Your task to perform on an android device: Open Wikipedia Image 0: 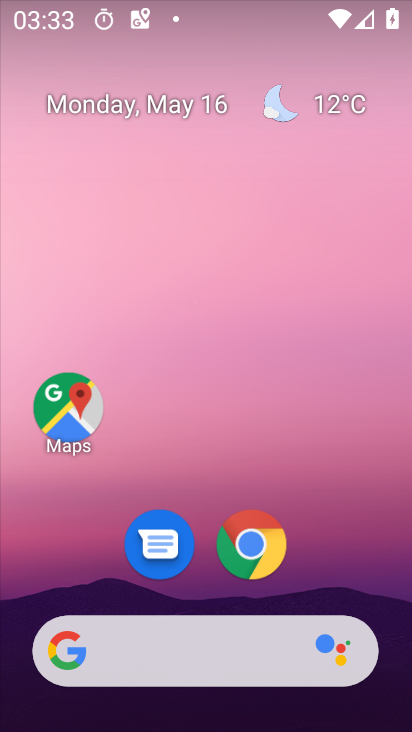
Step 0: click (255, 546)
Your task to perform on an android device: Open Wikipedia Image 1: 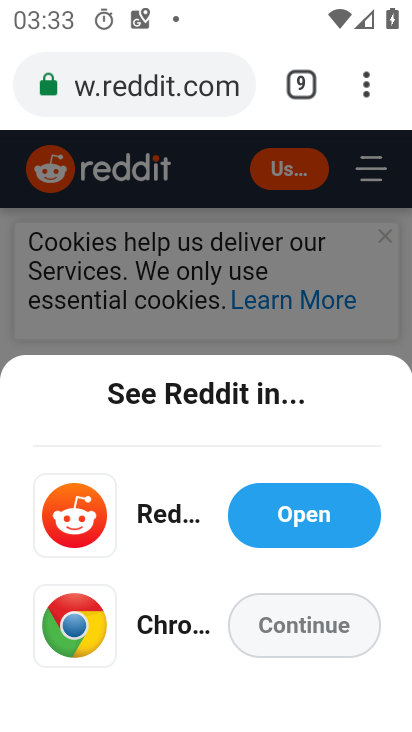
Step 1: click (368, 94)
Your task to perform on an android device: Open Wikipedia Image 2: 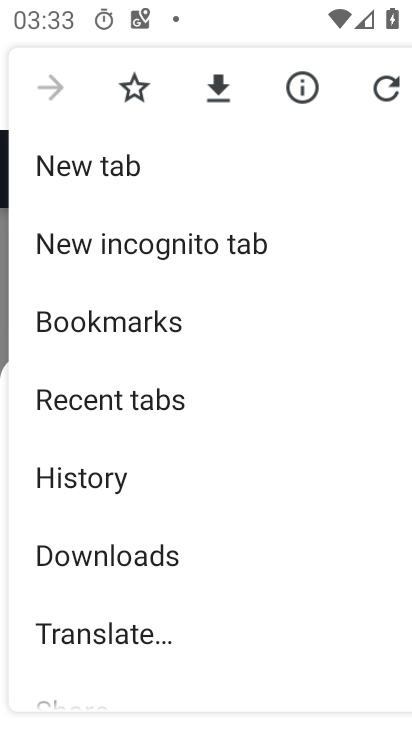
Step 2: click (105, 164)
Your task to perform on an android device: Open Wikipedia Image 3: 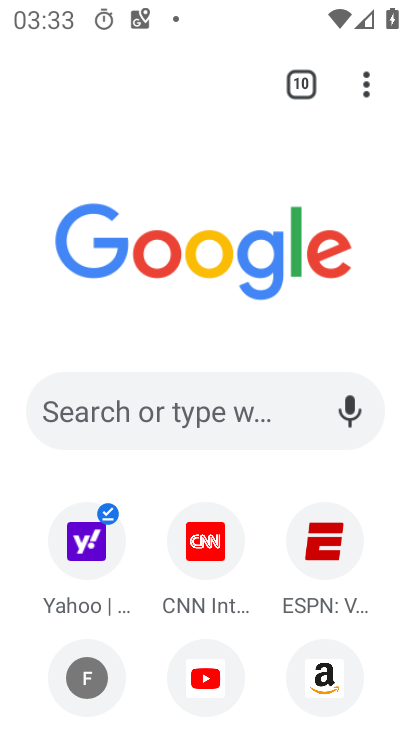
Step 3: click (181, 412)
Your task to perform on an android device: Open Wikipedia Image 4: 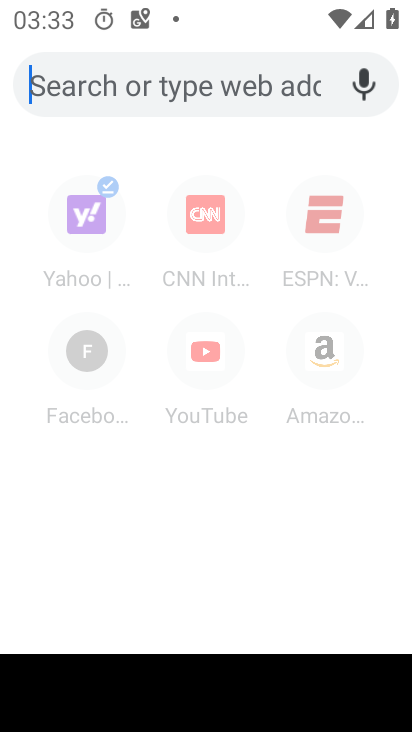
Step 4: type "Wikipedia"
Your task to perform on an android device: Open Wikipedia Image 5: 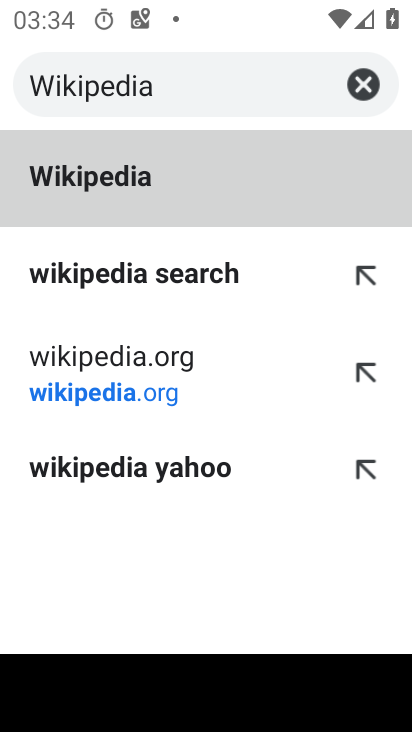
Step 5: click (111, 172)
Your task to perform on an android device: Open Wikipedia Image 6: 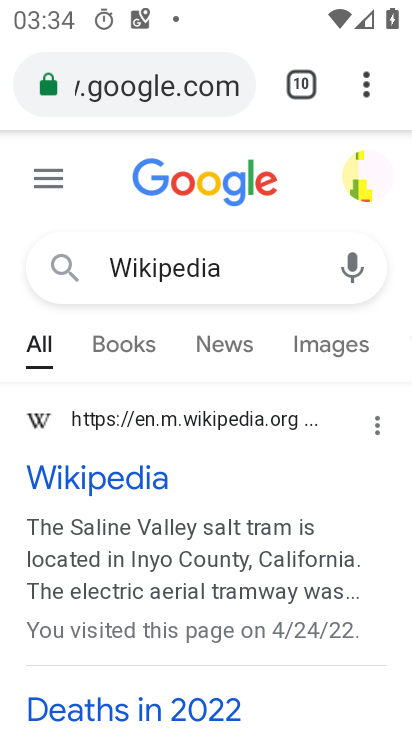
Step 6: click (78, 477)
Your task to perform on an android device: Open Wikipedia Image 7: 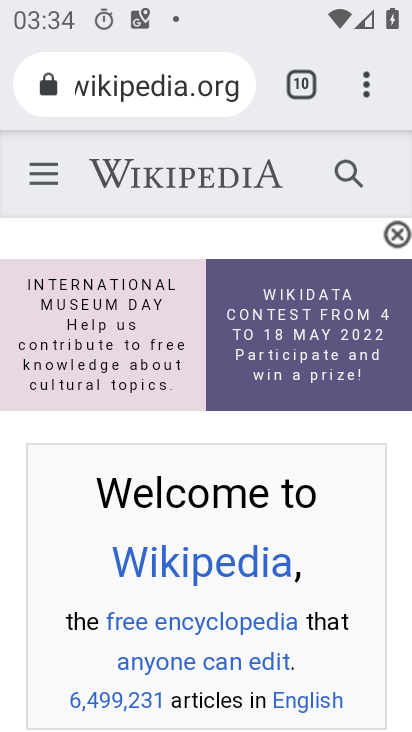
Step 7: task complete